Your task to perform on an android device: set an alarm Image 0: 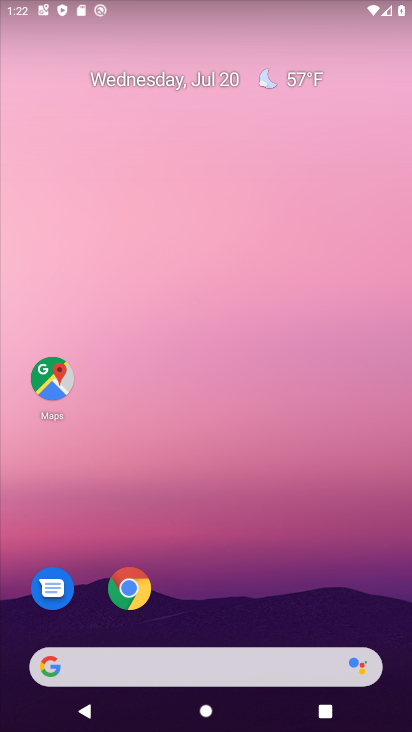
Step 0: drag from (60, 668) to (353, 110)
Your task to perform on an android device: set an alarm Image 1: 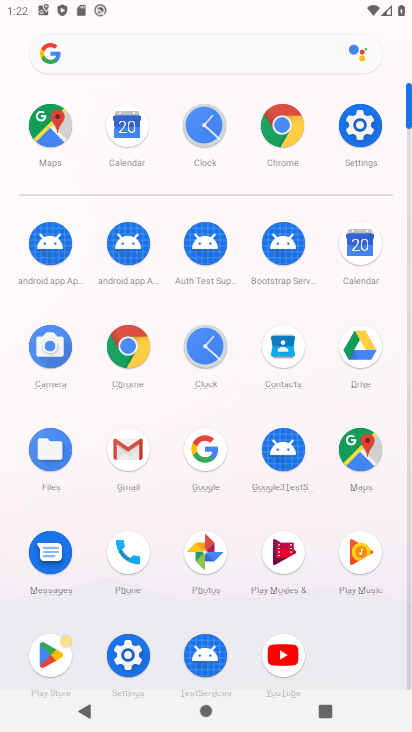
Step 1: click (212, 132)
Your task to perform on an android device: set an alarm Image 2: 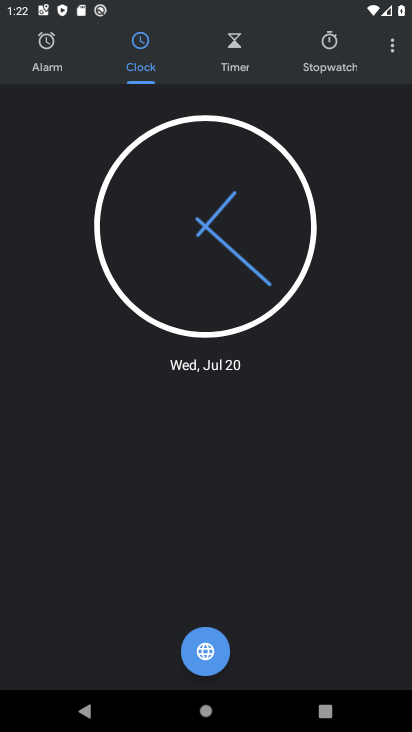
Step 2: click (46, 54)
Your task to perform on an android device: set an alarm Image 3: 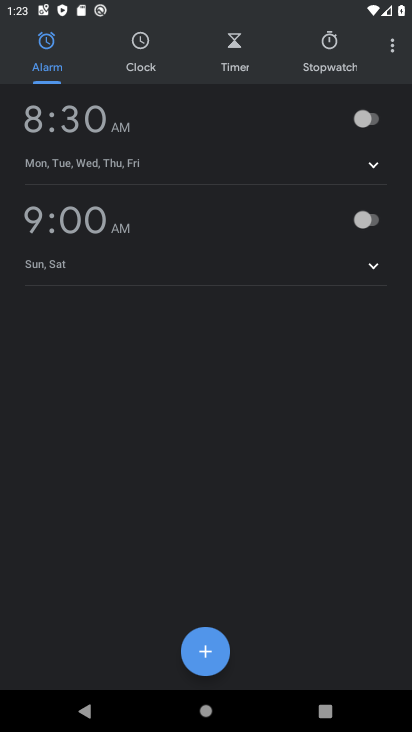
Step 3: click (220, 658)
Your task to perform on an android device: set an alarm Image 4: 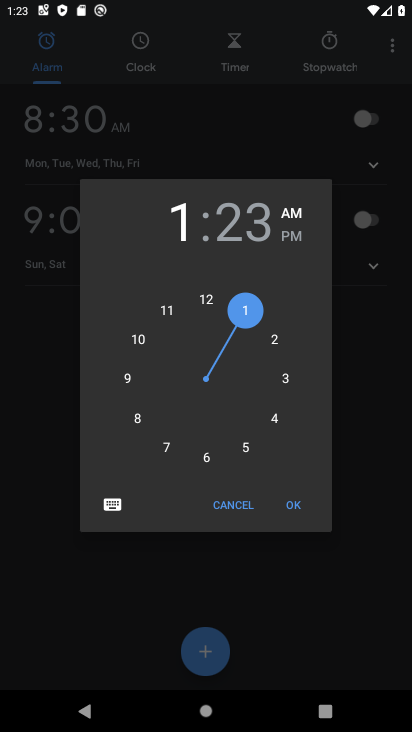
Step 4: click (207, 456)
Your task to perform on an android device: set an alarm Image 5: 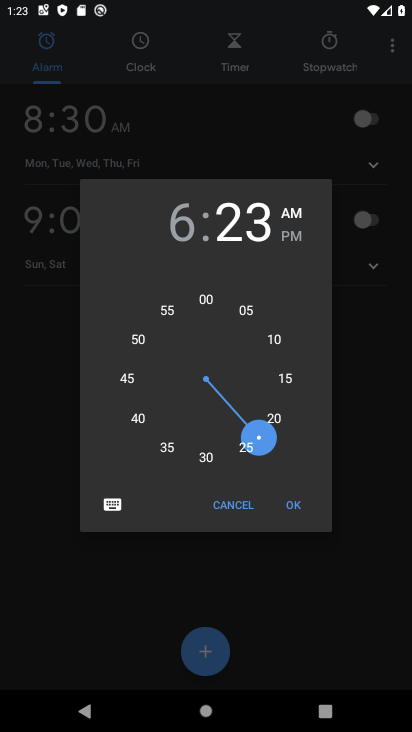
Step 5: click (196, 459)
Your task to perform on an android device: set an alarm Image 6: 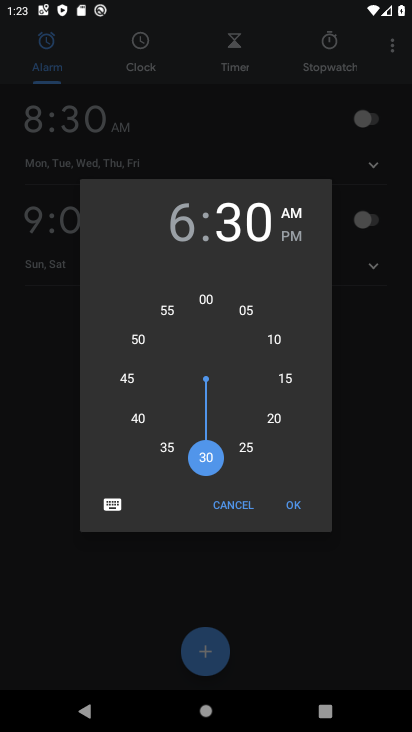
Step 6: click (281, 236)
Your task to perform on an android device: set an alarm Image 7: 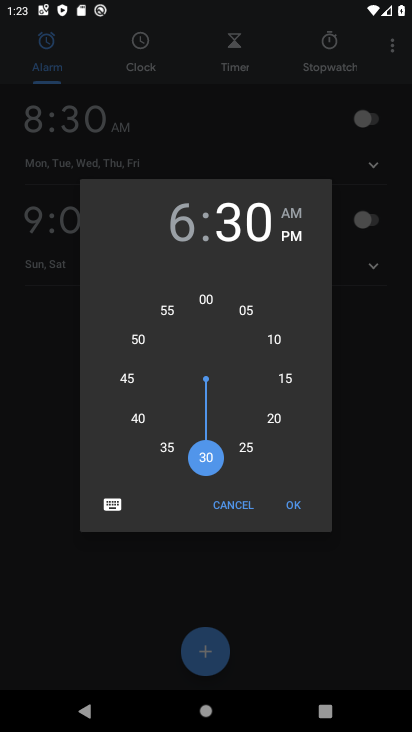
Step 7: click (300, 510)
Your task to perform on an android device: set an alarm Image 8: 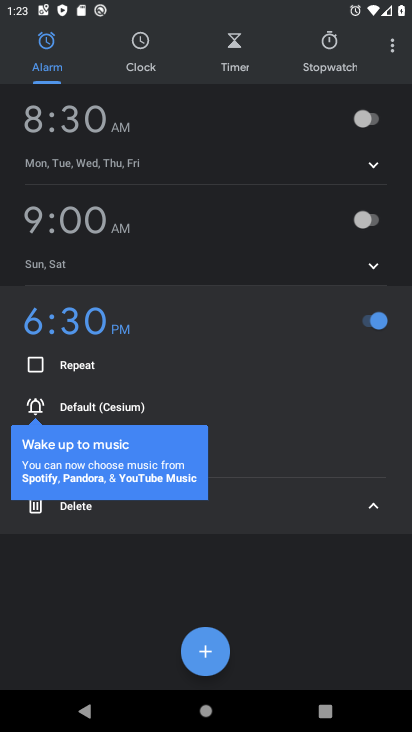
Step 8: task complete